Your task to perform on an android device: Open notification settings Image 0: 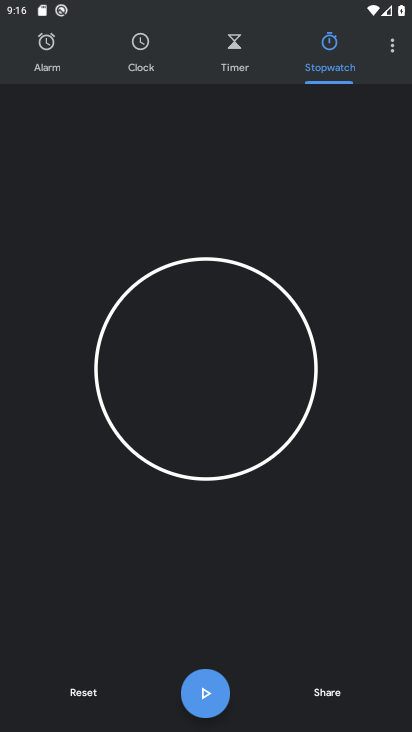
Step 0: press home button
Your task to perform on an android device: Open notification settings Image 1: 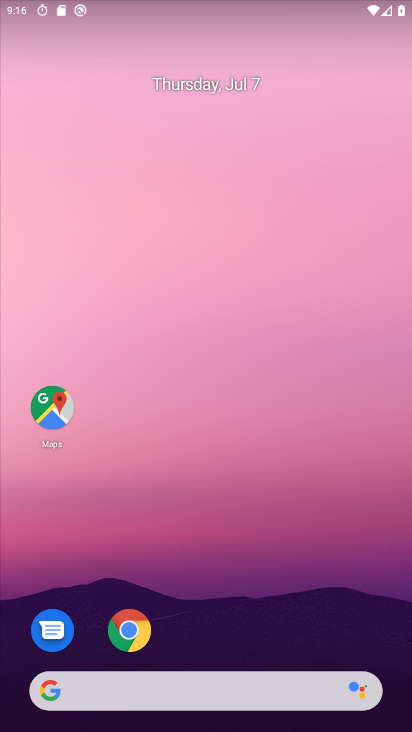
Step 1: drag from (59, 713) to (374, 20)
Your task to perform on an android device: Open notification settings Image 2: 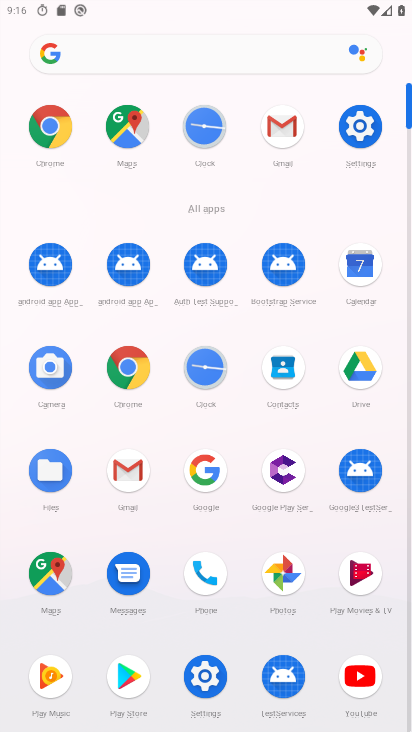
Step 2: click (195, 670)
Your task to perform on an android device: Open notification settings Image 3: 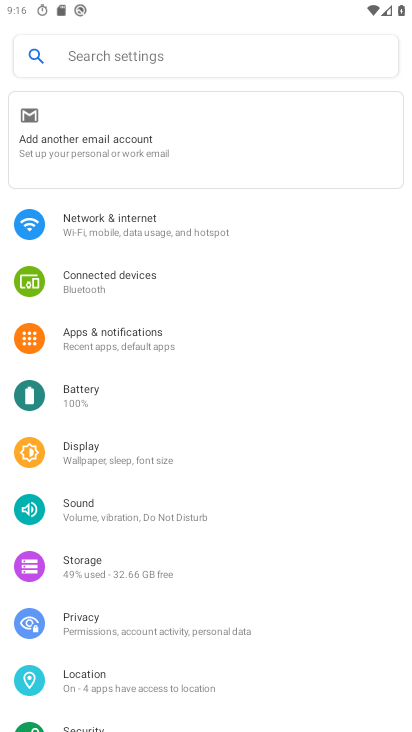
Step 3: click (121, 332)
Your task to perform on an android device: Open notification settings Image 4: 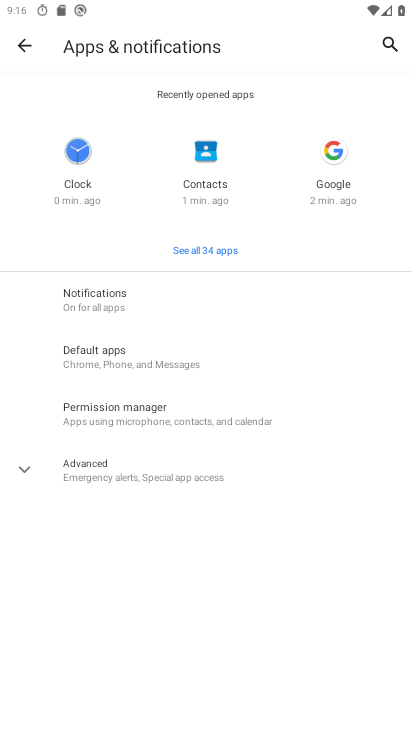
Step 4: task complete